Your task to perform on an android device: change the clock display to analog Image 0: 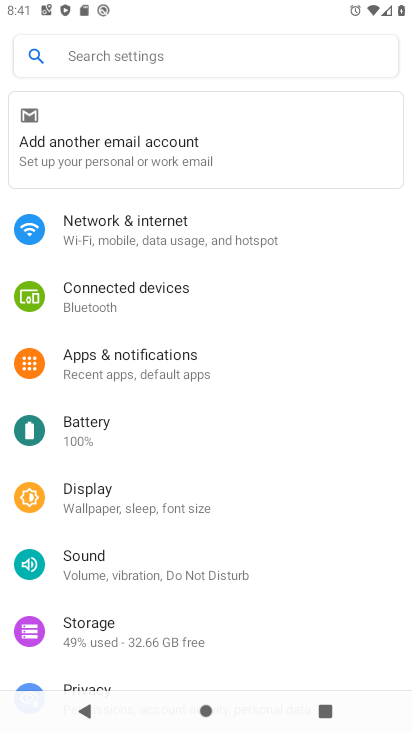
Step 0: press home button
Your task to perform on an android device: change the clock display to analog Image 1: 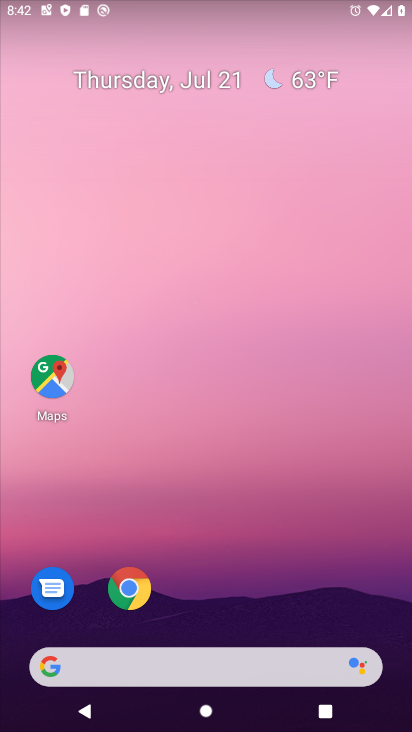
Step 1: drag from (295, 598) to (385, 143)
Your task to perform on an android device: change the clock display to analog Image 2: 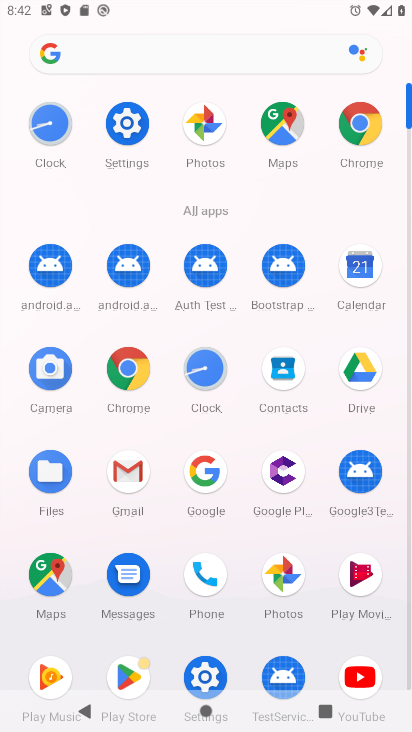
Step 2: click (192, 360)
Your task to perform on an android device: change the clock display to analog Image 3: 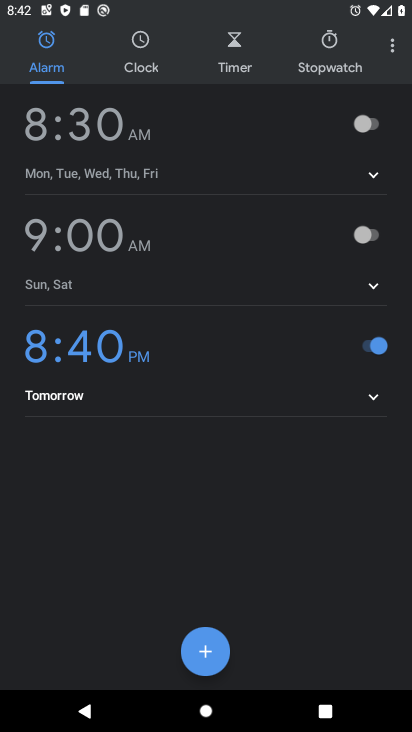
Step 3: click (385, 31)
Your task to perform on an android device: change the clock display to analog Image 4: 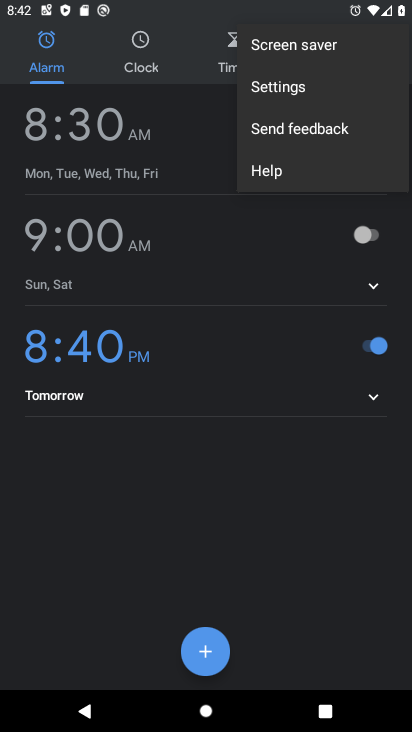
Step 4: click (306, 80)
Your task to perform on an android device: change the clock display to analog Image 5: 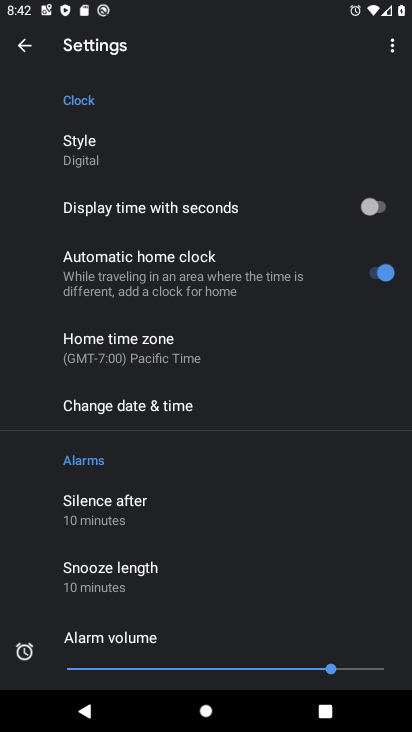
Step 5: click (100, 167)
Your task to perform on an android device: change the clock display to analog Image 6: 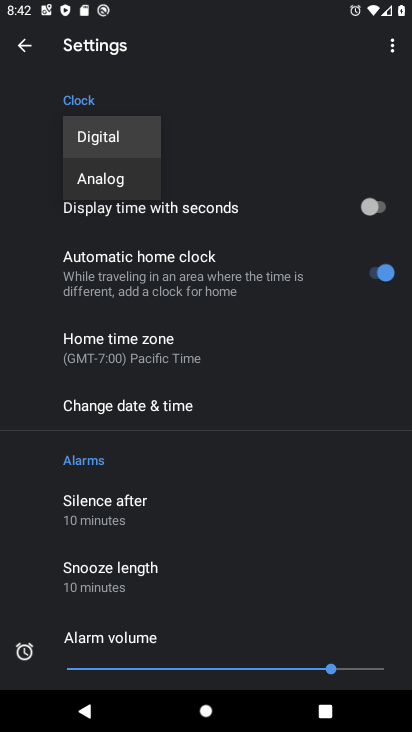
Step 6: click (130, 170)
Your task to perform on an android device: change the clock display to analog Image 7: 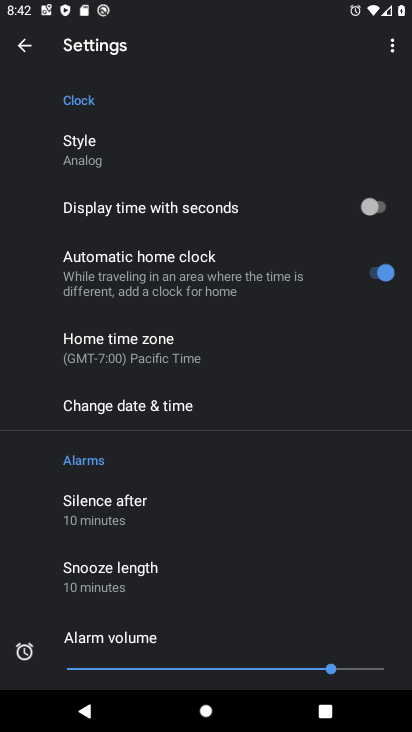
Step 7: task complete